Your task to perform on an android device: Open calendar and show me the first week of next month Image 0: 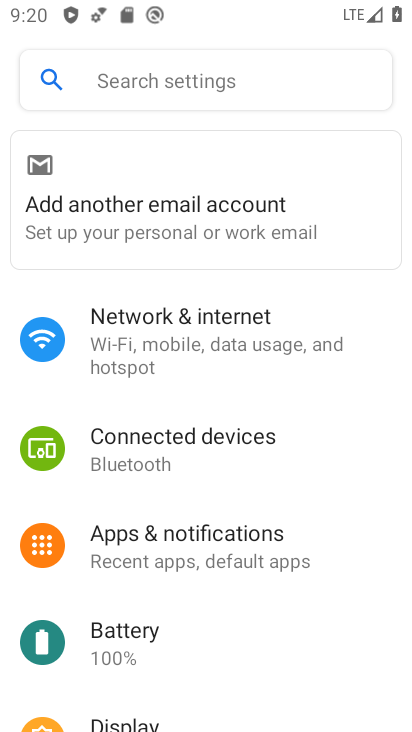
Step 0: press home button
Your task to perform on an android device: Open calendar and show me the first week of next month Image 1: 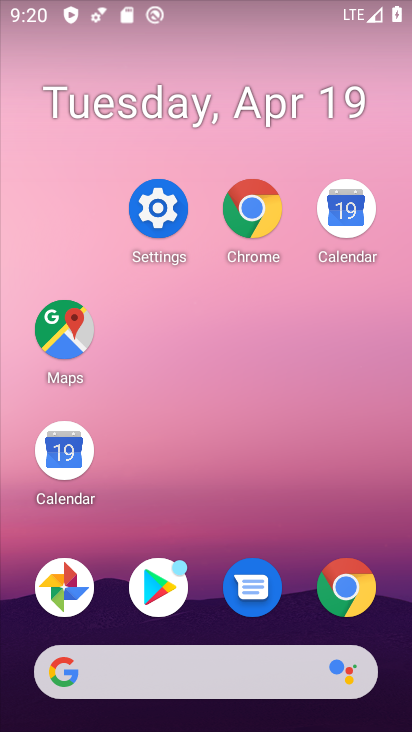
Step 1: drag from (392, 685) to (230, 136)
Your task to perform on an android device: Open calendar and show me the first week of next month Image 2: 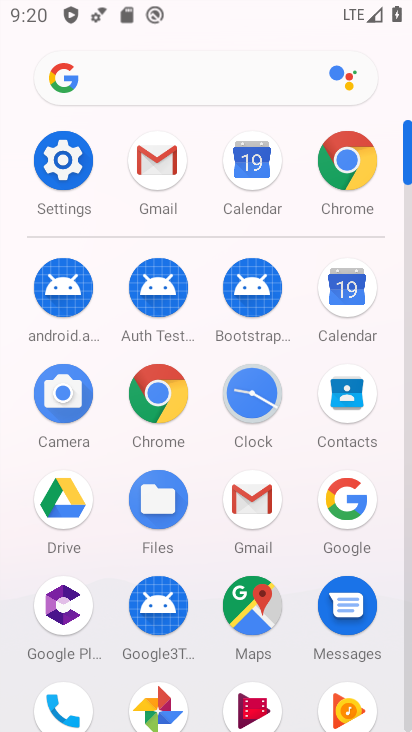
Step 2: click (335, 292)
Your task to perform on an android device: Open calendar and show me the first week of next month Image 3: 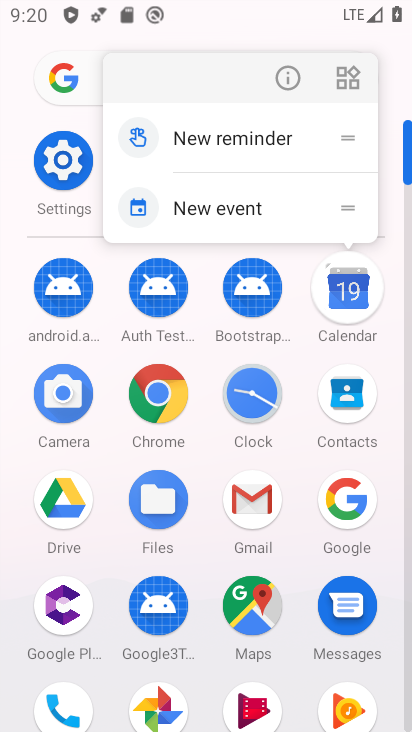
Step 3: click (335, 292)
Your task to perform on an android device: Open calendar and show me the first week of next month Image 4: 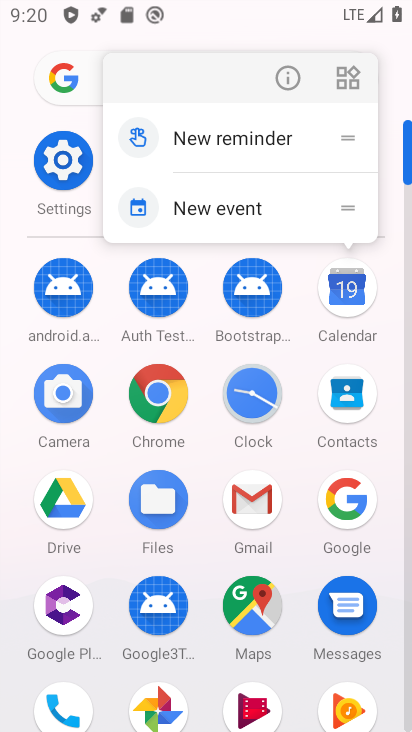
Step 4: click (335, 292)
Your task to perform on an android device: Open calendar and show me the first week of next month Image 5: 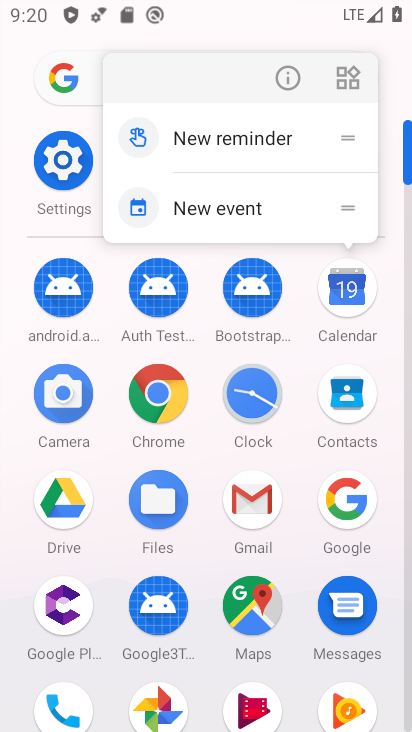
Step 5: click (365, 290)
Your task to perform on an android device: Open calendar and show me the first week of next month Image 6: 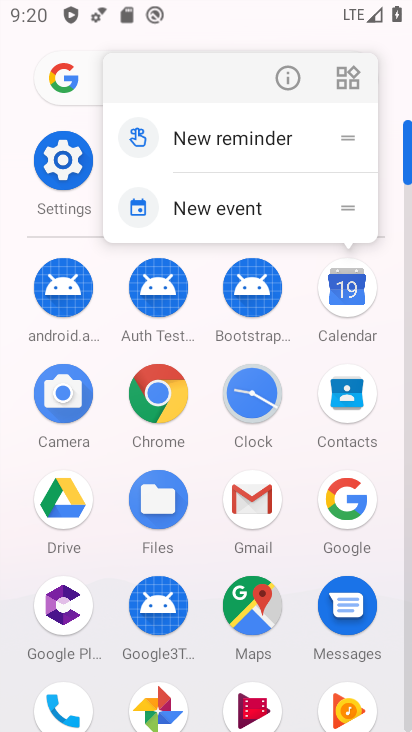
Step 6: click (359, 290)
Your task to perform on an android device: Open calendar and show me the first week of next month Image 7: 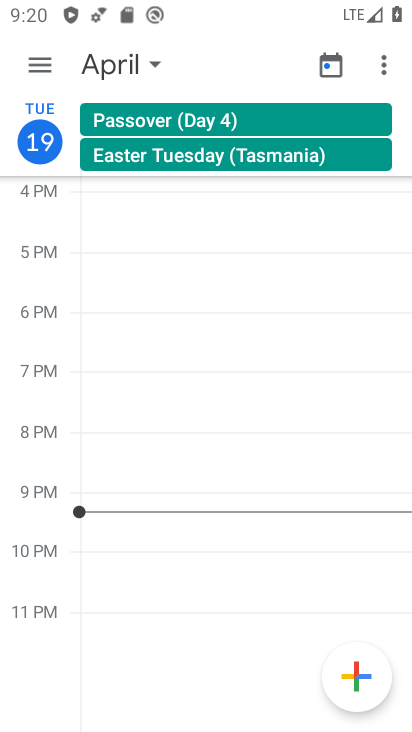
Step 7: click (153, 64)
Your task to perform on an android device: Open calendar and show me the first week of next month Image 8: 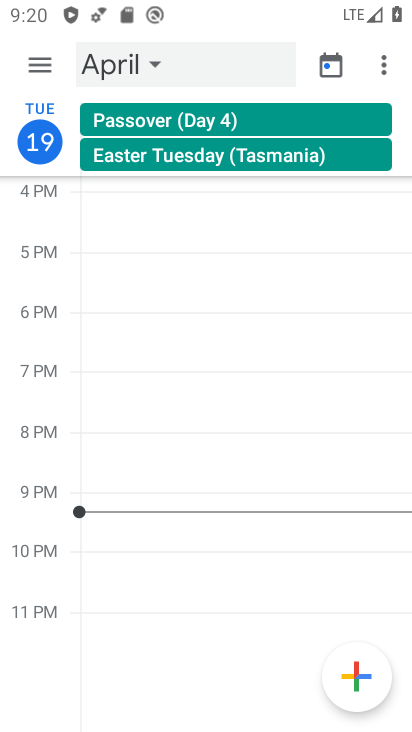
Step 8: click (153, 64)
Your task to perform on an android device: Open calendar and show me the first week of next month Image 9: 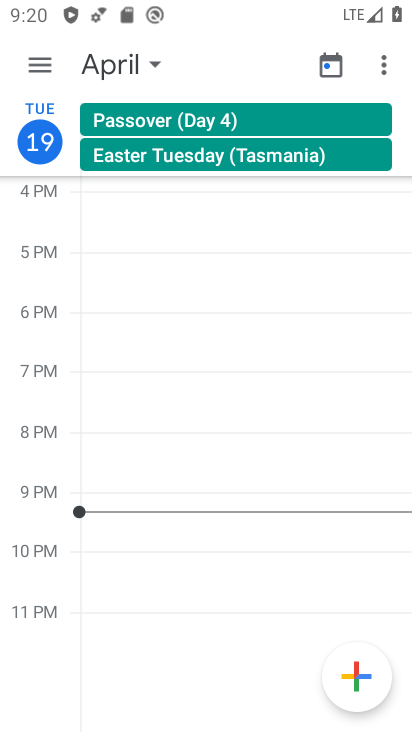
Step 9: click (153, 64)
Your task to perform on an android device: Open calendar and show me the first week of next month Image 10: 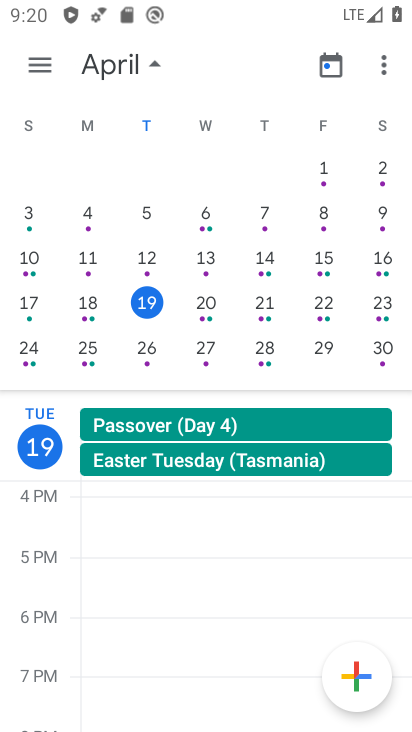
Step 10: drag from (236, 307) to (0, 300)
Your task to perform on an android device: Open calendar and show me the first week of next month Image 11: 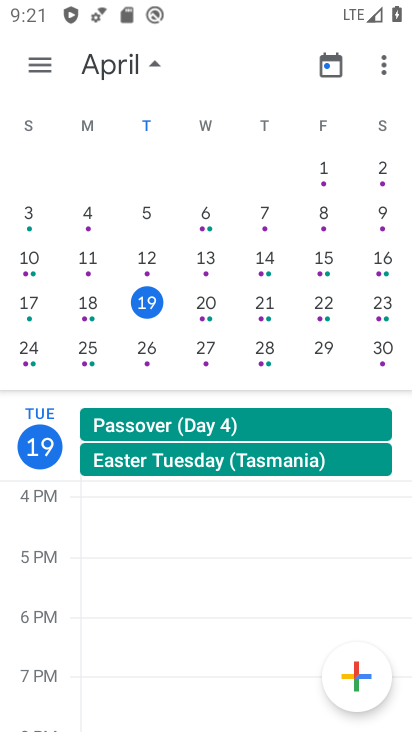
Step 11: click (223, 309)
Your task to perform on an android device: Open calendar and show me the first week of next month Image 12: 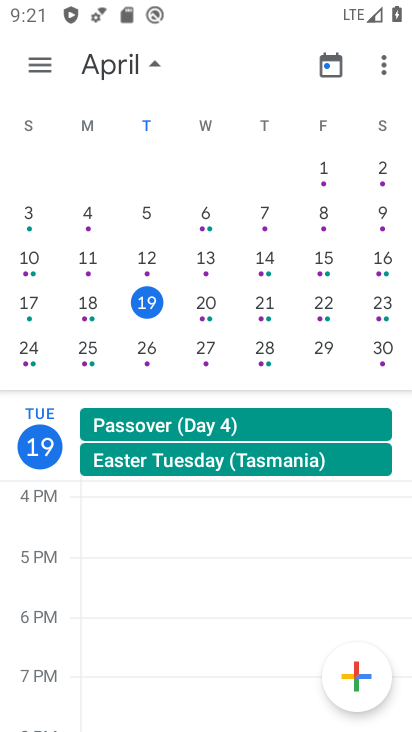
Step 12: drag from (95, 322) to (35, 293)
Your task to perform on an android device: Open calendar and show me the first week of next month Image 13: 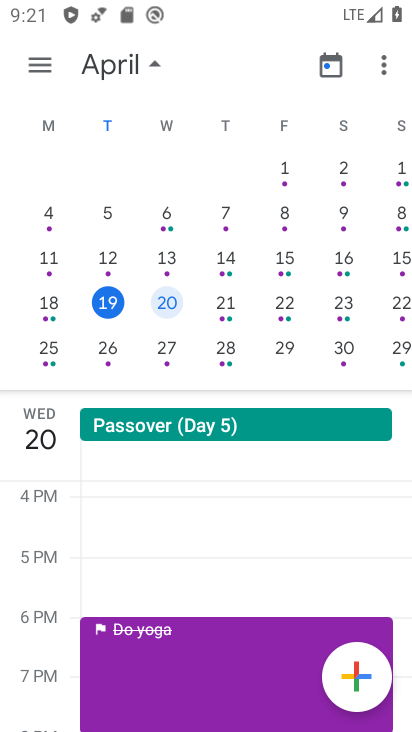
Step 13: drag from (138, 308) to (5, 250)
Your task to perform on an android device: Open calendar and show me the first week of next month Image 14: 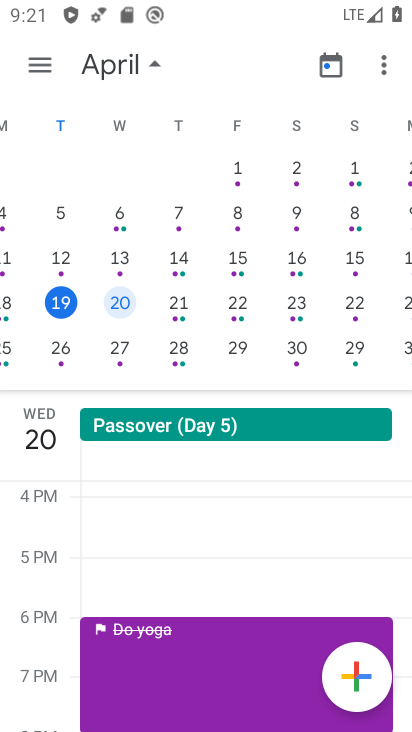
Step 14: drag from (173, 270) to (5, 261)
Your task to perform on an android device: Open calendar and show me the first week of next month Image 15: 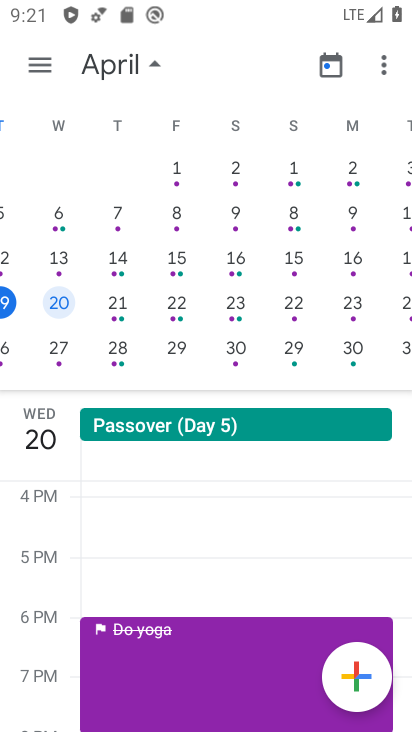
Step 15: drag from (160, 296) to (25, 276)
Your task to perform on an android device: Open calendar and show me the first week of next month Image 16: 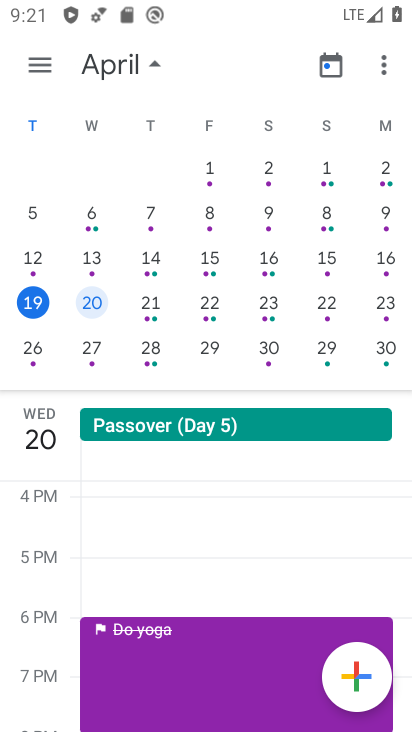
Step 16: drag from (199, 314) to (6, 293)
Your task to perform on an android device: Open calendar and show me the first week of next month Image 17: 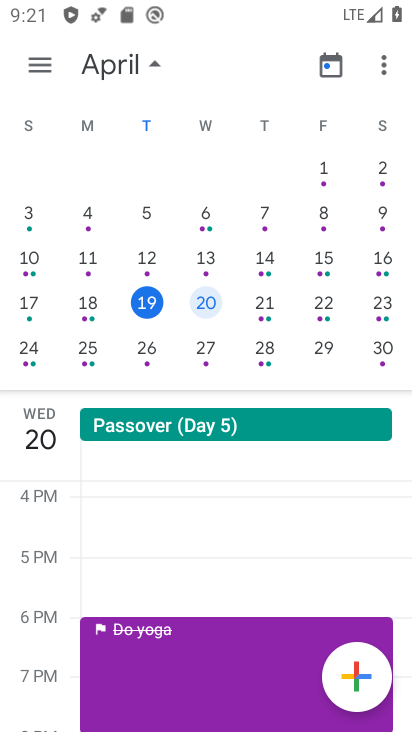
Step 17: click (10, 390)
Your task to perform on an android device: Open calendar and show me the first week of next month Image 18: 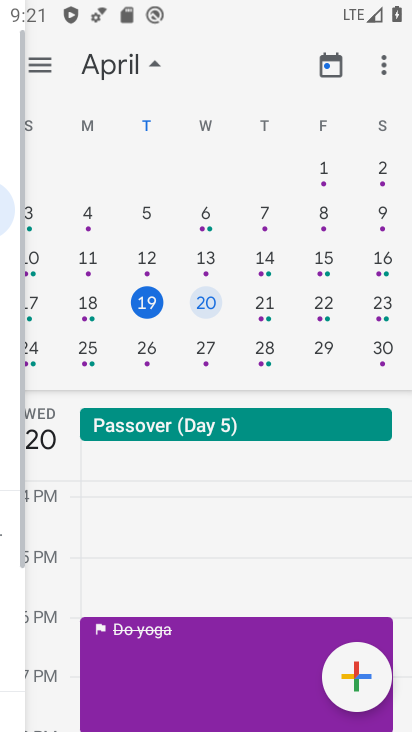
Step 18: drag from (257, 308) to (57, 289)
Your task to perform on an android device: Open calendar and show me the first week of next month Image 19: 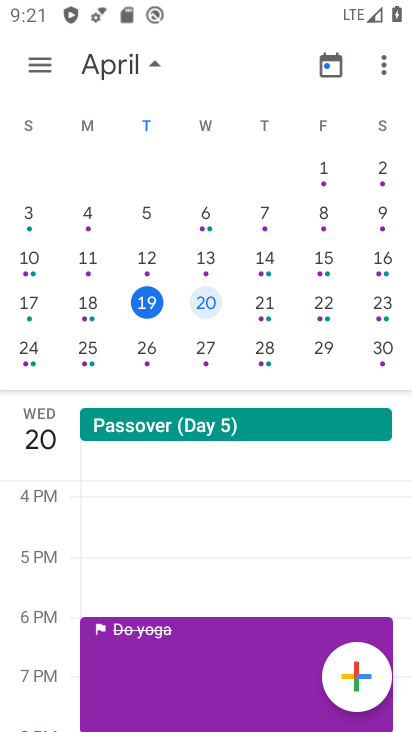
Step 19: drag from (218, 306) to (34, 284)
Your task to perform on an android device: Open calendar and show me the first week of next month Image 20: 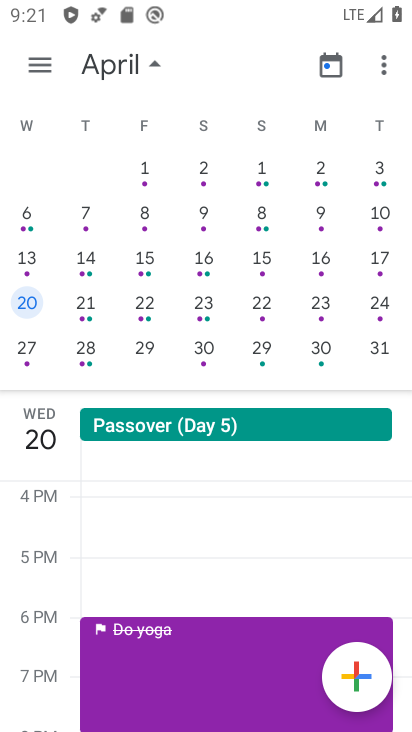
Step 20: click (134, 260)
Your task to perform on an android device: Open calendar and show me the first week of next month Image 21: 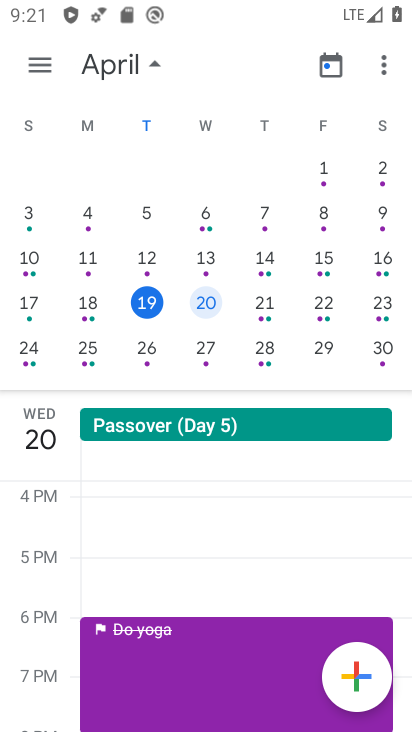
Step 21: drag from (129, 269) to (41, 295)
Your task to perform on an android device: Open calendar and show me the first week of next month Image 22: 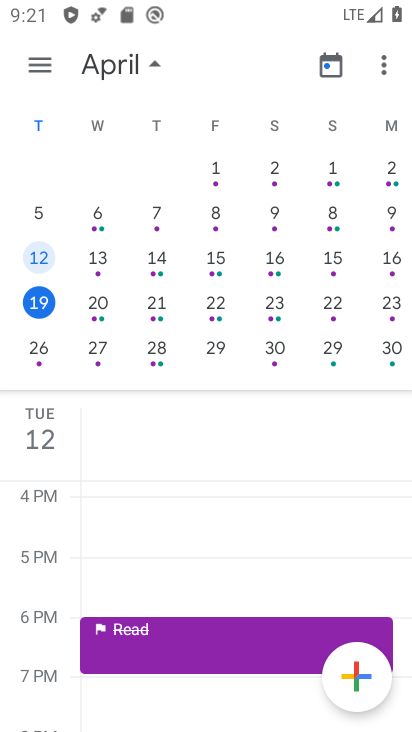
Step 22: drag from (232, 306) to (13, 317)
Your task to perform on an android device: Open calendar and show me the first week of next month Image 23: 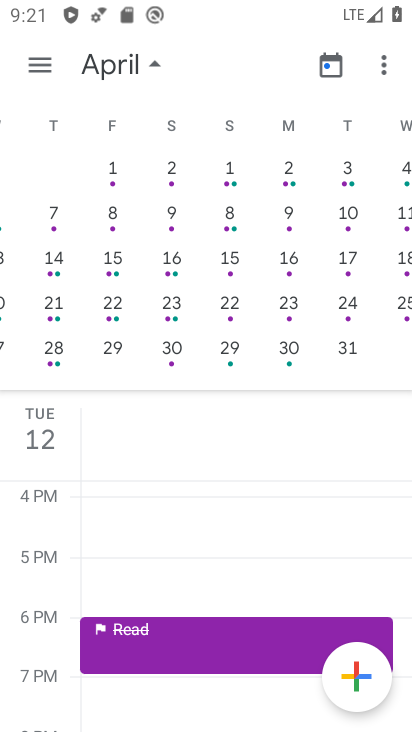
Step 23: drag from (251, 308) to (29, 289)
Your task to perform on an android device: Open calendar and show me the first week of next month Image 24: 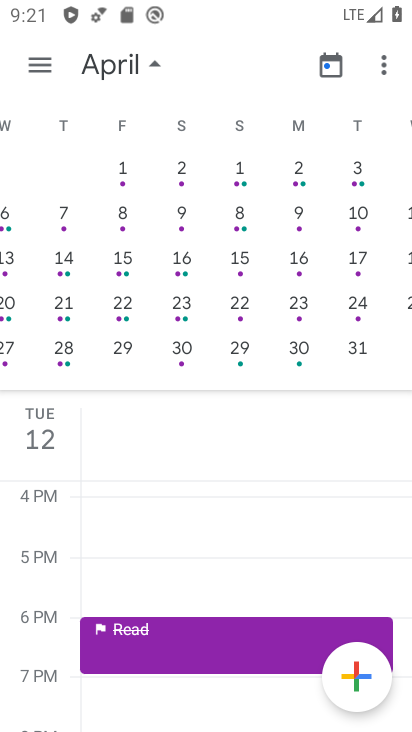
Step 24: drag from (166, 271) to (91, 277)
Your task to perform on an android device: Open calendar and show me the first week of next month Image 25: 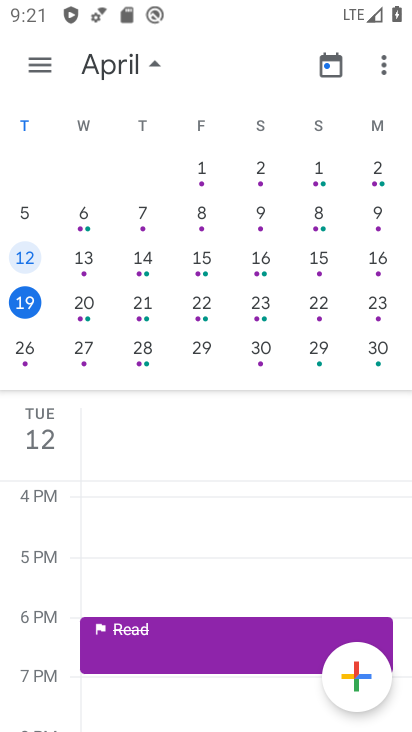
Step 25: drag from (226, 297) to (86, 308)
Your task to perform on an android device: Open calendar and show me the first week of next month Image 26: 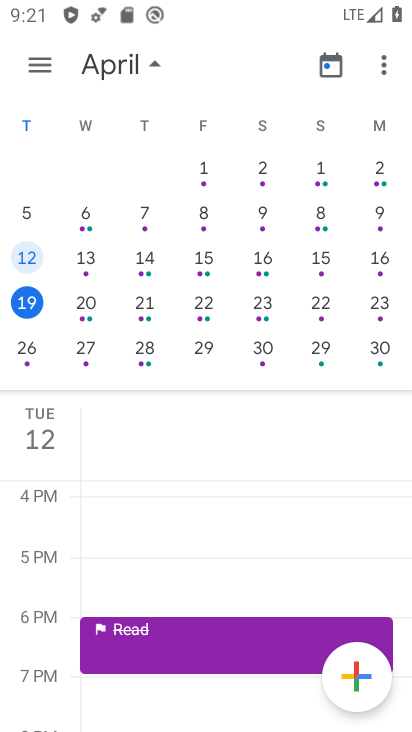
Step 26: drag from (279, 308) to (10, 299)
Your task to perform on an android device: Open calendar and show me the first week of next month Image 27: 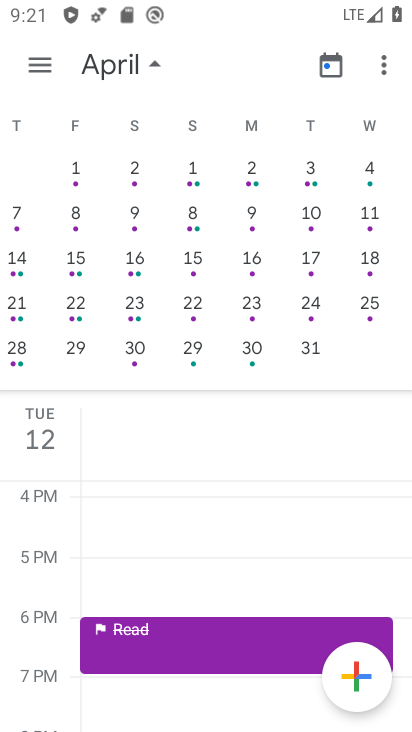
Step 27: drag from (136, 304) to (20, 300)
Your task to perform on an android device: Open calendar and show me the first week of next month Image 28: 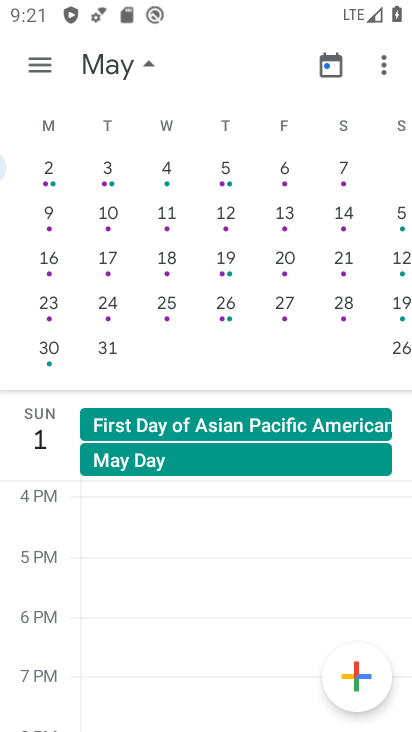
Step 28: click (230, 268)
Your task to perform on an android device: Open calendar and show me the first week of next month Image 29: 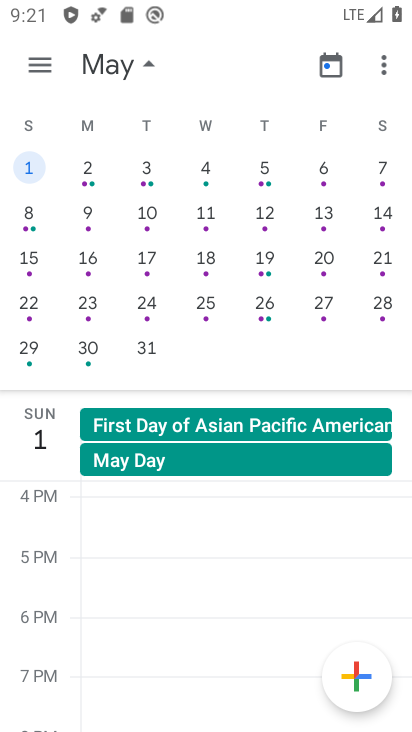
Step 29: click (88, 167)
Your task to perform on an android device: Open calendar and show me the first week of next month Image 30: 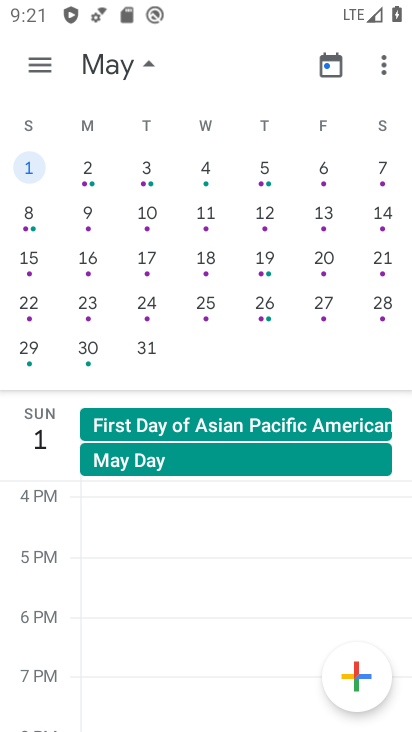
Step 30: click (88, 167)
Your task to perform on an android device: Open calendar and show me the first week of next month Image 31: 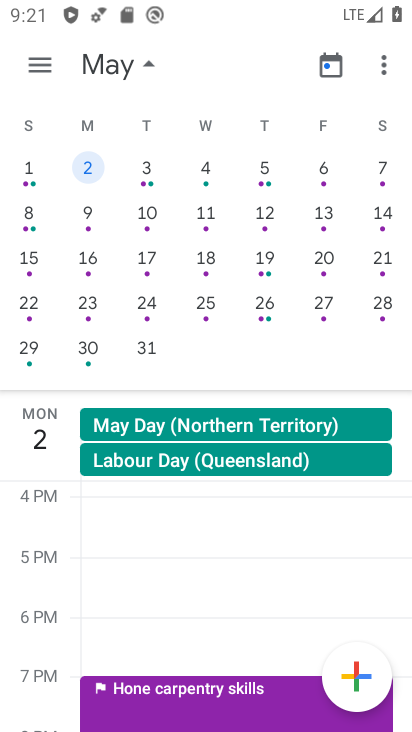
Step 31: task complete